Your task to perform on an android device: Open the calendar app, open the side menu, and click the "Day" option Image 0: 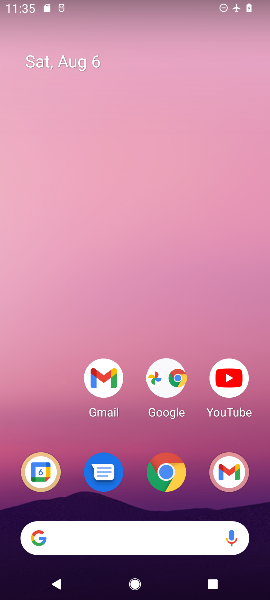
Step 0: task impossible